Your task to perform on an android device: Go to display settings Image 0: 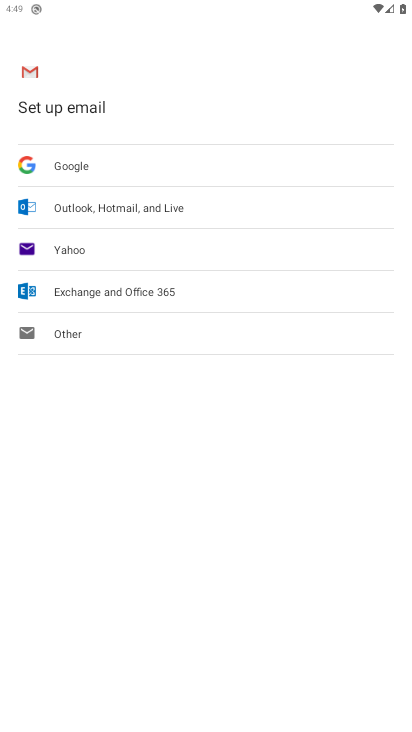
Step 0: press home button
Your task to perform on an android device: Go to display settings Image 1: 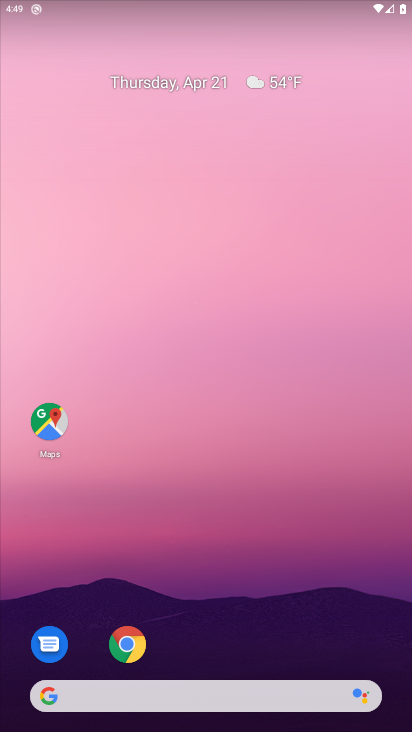
Step 1: drag from (202, 678) to (233, 283)
Your task to perform on an android device: Go to display settings Image 2: 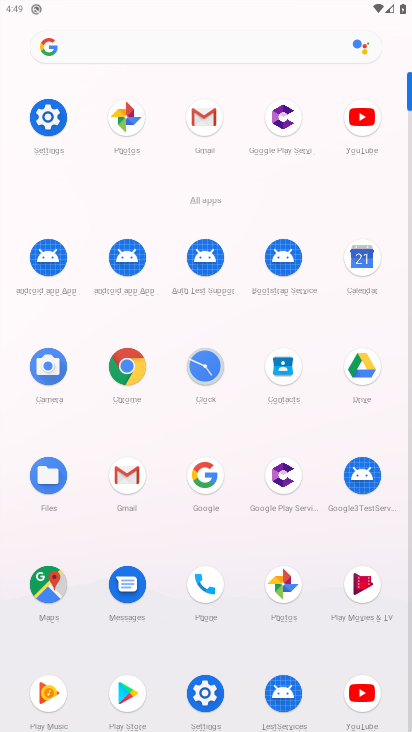
Step 2: click (40, 118)
Your task to perform on an android device: Go to display settings Image 3: 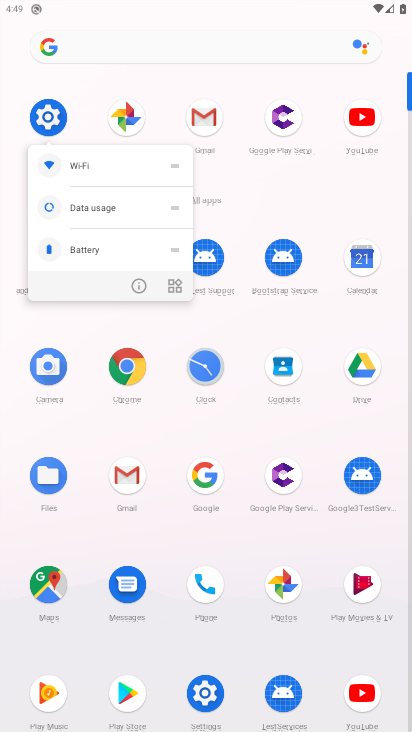
Step 3: click (50, 120)
Your task to perform on an android device: Go to display settings Image 4: 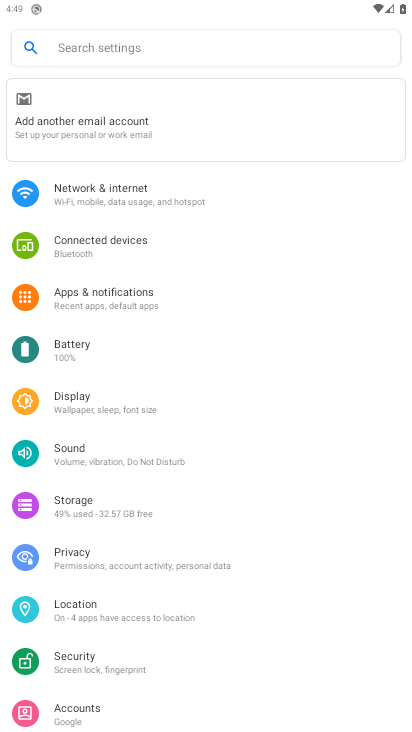
Step 4: click (85, 407)
Your task to perform on an android device: Go to display settings Image 5: 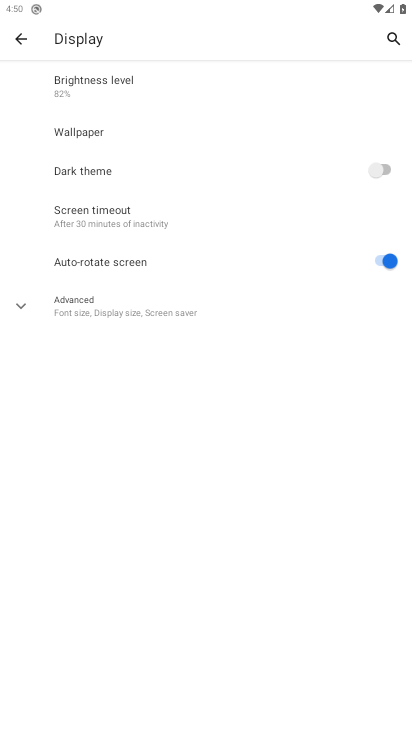
Step 5: click (120, 308)
Your task to perform on an android device: Go to display settings Image 6: 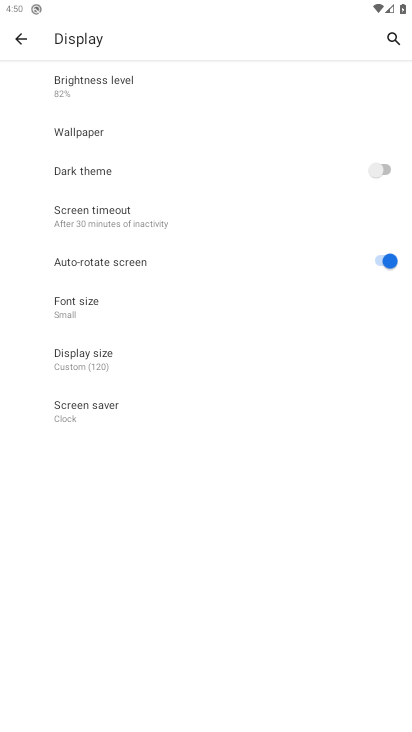
Step 6: task complete